Your task to perform on an android device: find which apps use the phone's location Image 0: 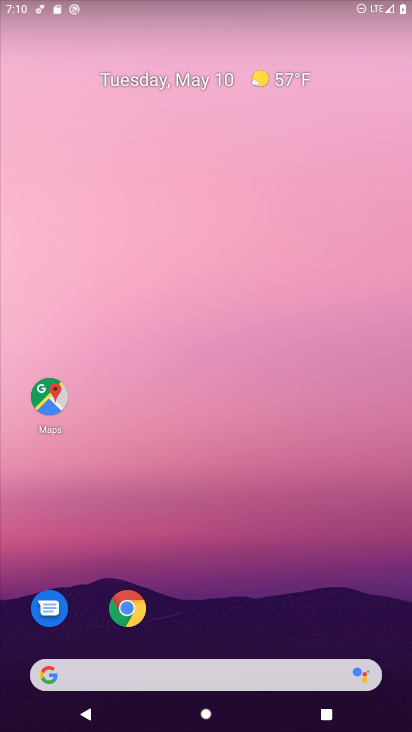
Step 0: drag from (339, 606) to (266, 33)
Your task to perform on an android device: find which apps use the phone's location Image 1: 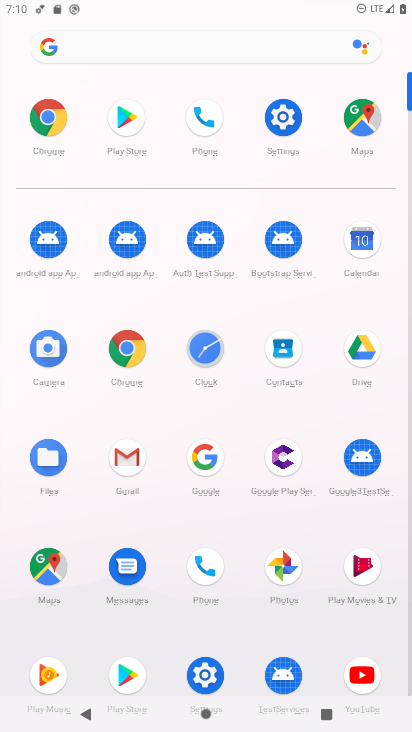
Step 1: click (215, 669)
Your task to perform on an android device: find which apps use the phone's location Image 2: 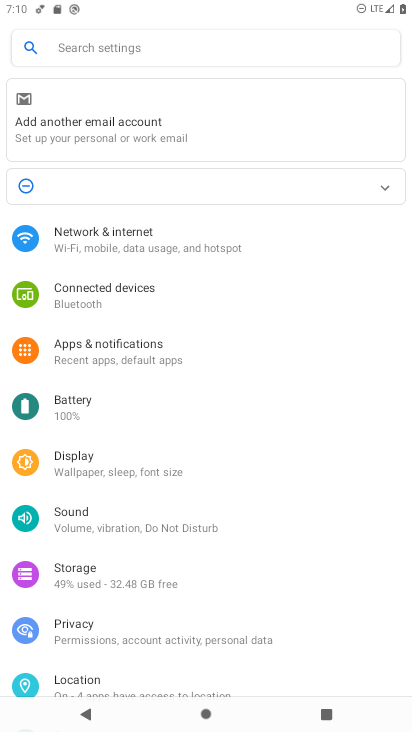
Step 2: click (105, 674)
Your task to perform on an android device: find which apps use the phone's location Image 3: 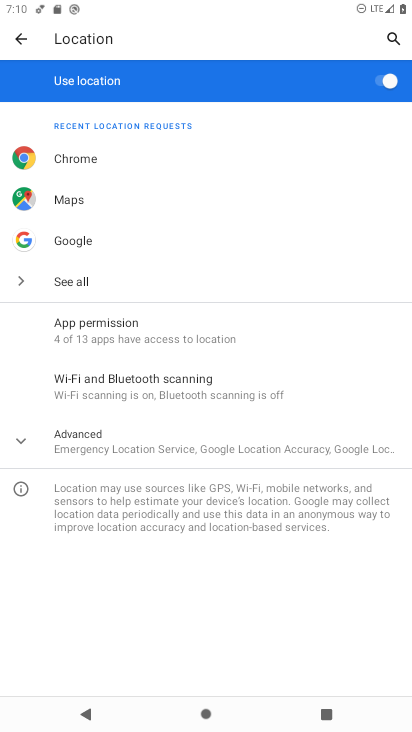
Step 3: click (151, 323)
Your task to perform on an android device: find which apps use the phone's location Image 4: 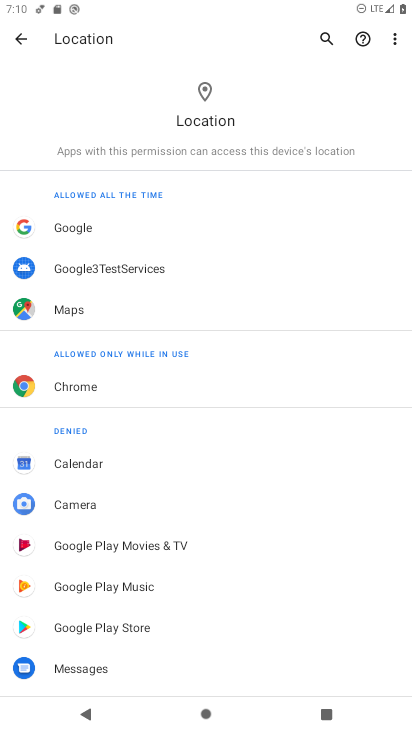
Step 4: drag from (131, 531) to (148, 301)
Your task to perform on an android device: find which apps use the phone's location Image 5: 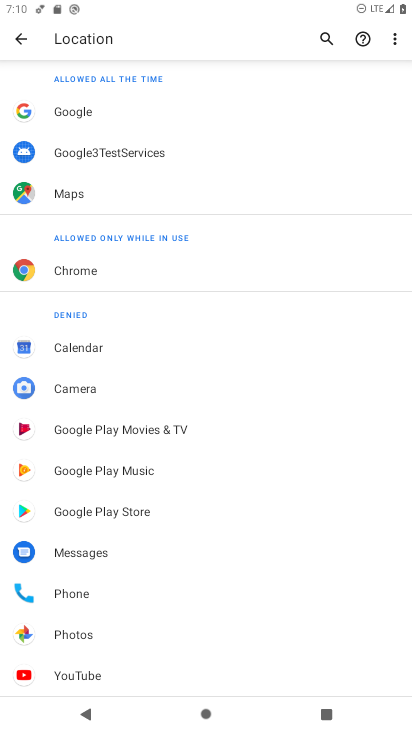
Step 5: click (99, 595)
Your task to perform on an android device: find which apps use the phone's location Image 6: 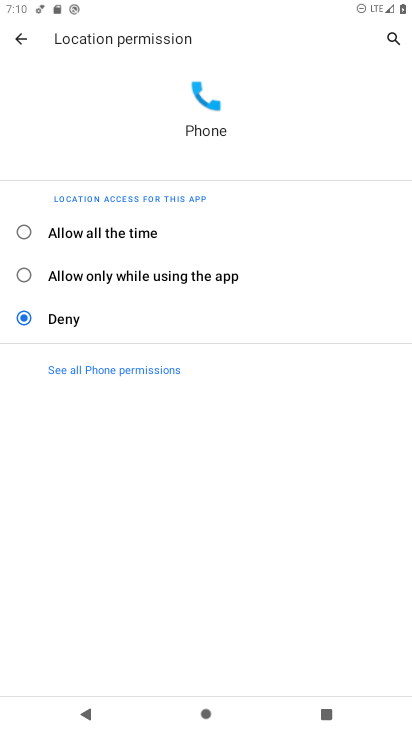
Step 6: click (98, 231)
Your task to perform on an android device: find which apps use the phone's location Image 7: 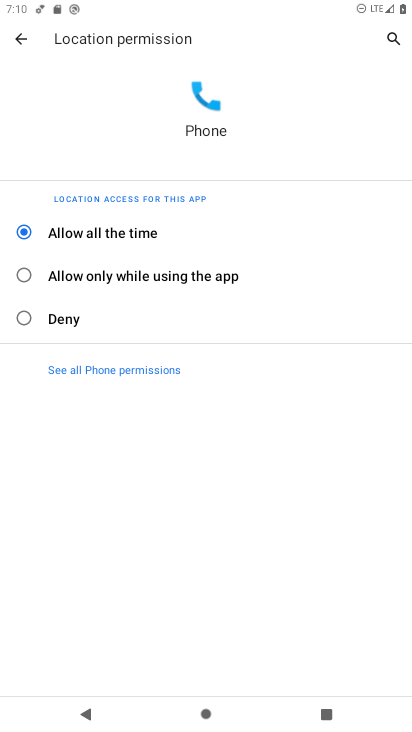
Step 7: task complete